Your task to perform on an android device: delete location history Image 0: 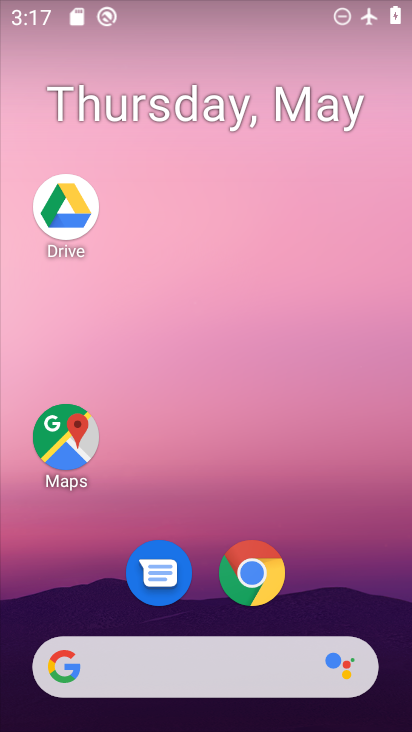
Step 0: click (70, 432)
Your task to perform on an android device: delete location history Image 1: 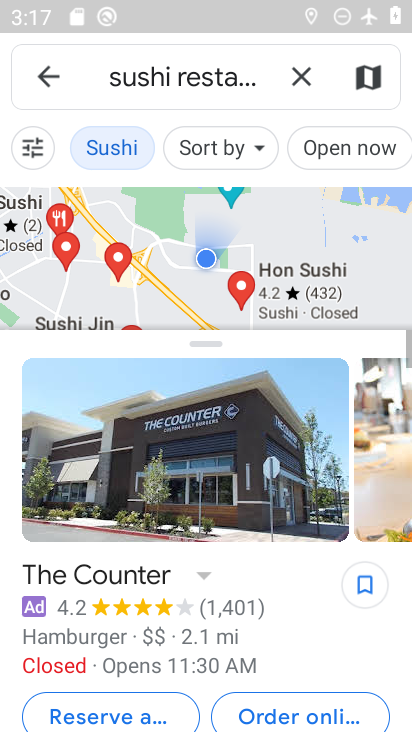
Step 1: click (52, 77)
Your task to perform on an android device: delete location history Image 2: 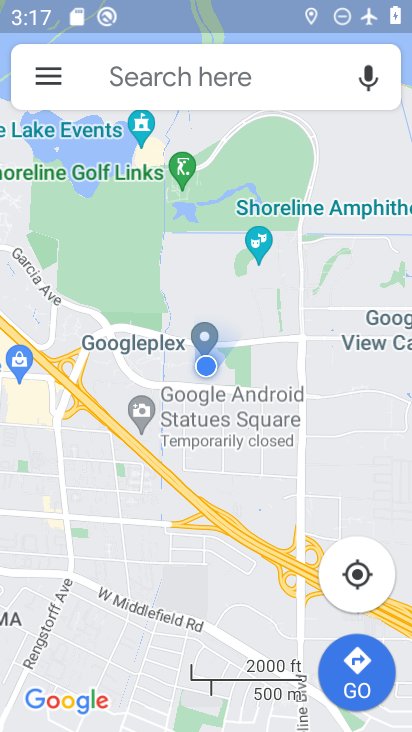
Step 2: click (45, 80)
Your task to perform on an android device: delete location history Image 3: 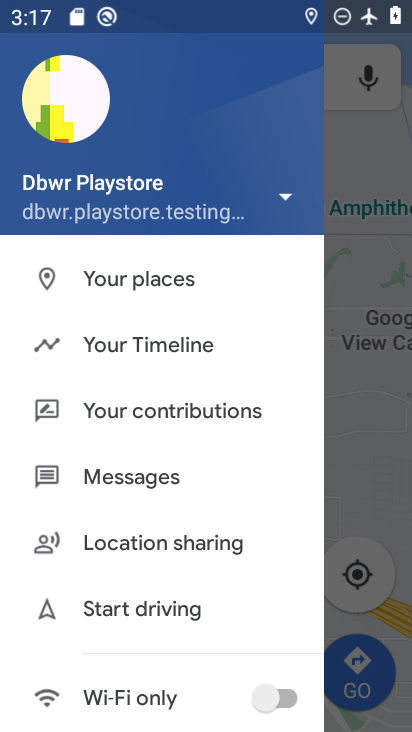
Step 3: click (131, 344)
Your task to perform on an android device: delete location history Image 4: 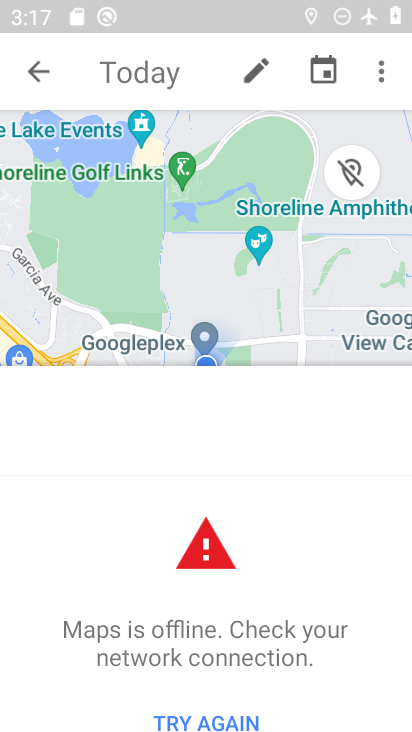
Step 4: click (379, 68)
Your task to perform on an android device: delete location history Image 5: 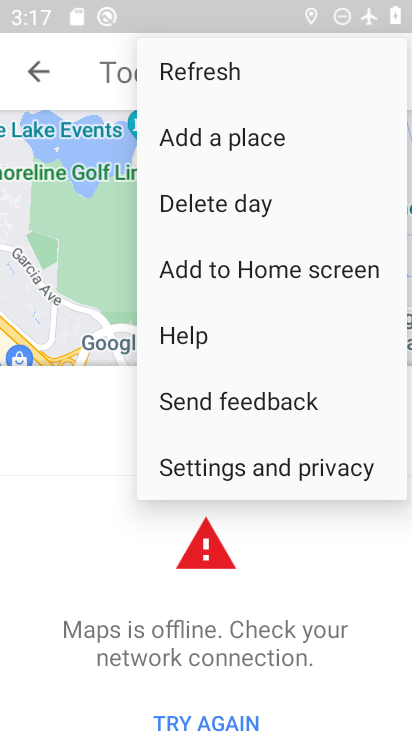
Step 5: click (230, 466)
Your task to perform on an android device: delete location history Image 6: 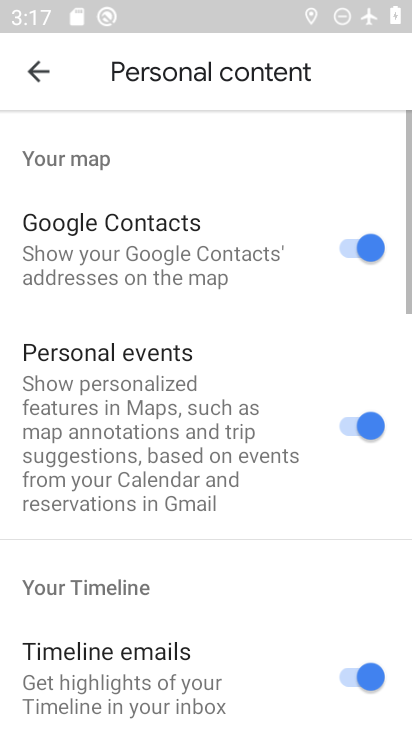
Step 6: task complete